Your task to perform on an android device: Search for vegetarian restaurants on Maps Image 0: 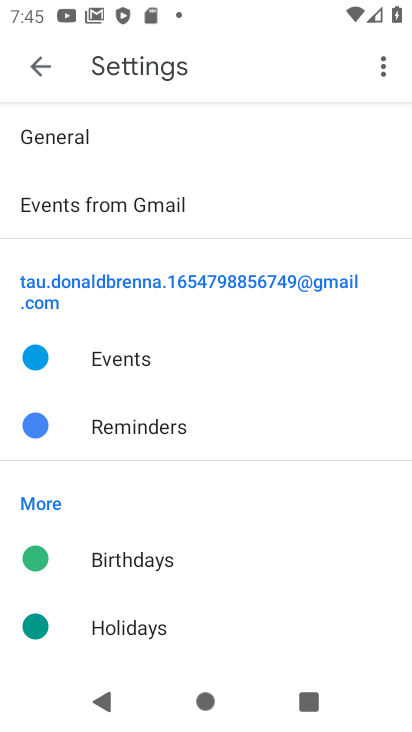
Step 0: press home button
Your task to perform on an android device: Search for vegetarian restaurants on Maps Image 1: 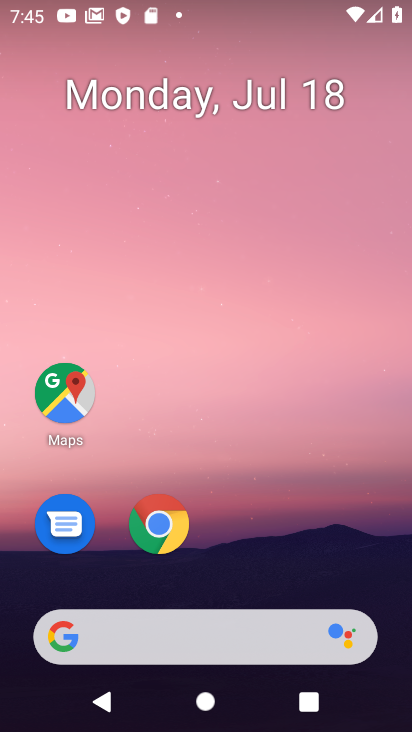
Step 1: click (70, 395)
Your task to perform on an android device: Search for vegetarian restaurants on Maps Image 2: 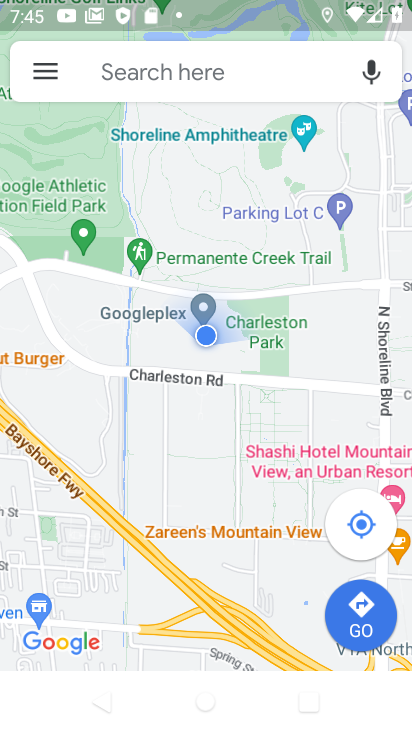
Step 2: click (160, 67)
Your task to perform on an android device: Search for vegetarian restaurants on Maps Image 3: 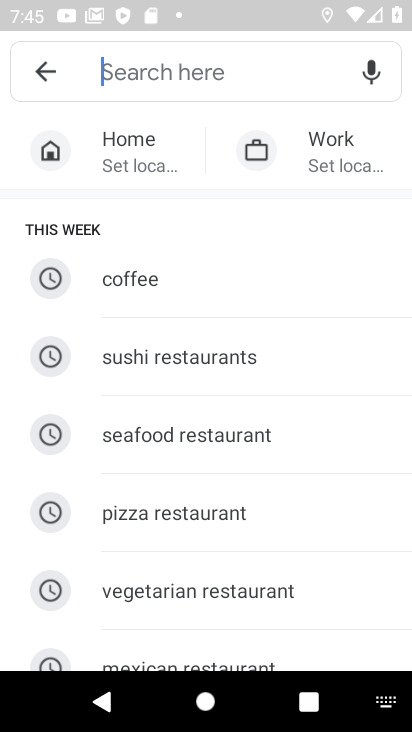
Step 3: click (200, 583)
Your task to perform on an android device: Search for vegetarian restaurants on Maps Image 4: 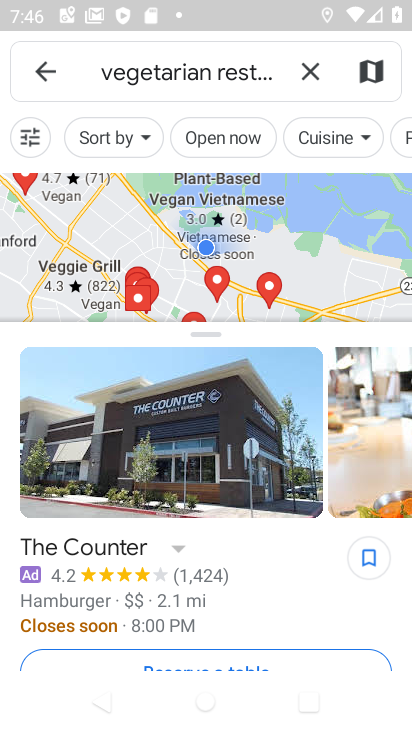
Step 4: task complete